Your task to perform on an android device: Open the map Image 0: 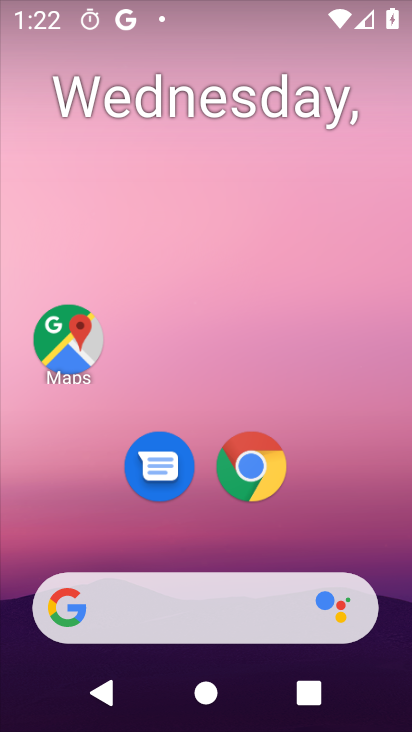
Step 0: click (73, 348)
Your task to perform on an android device: Open the map Image 1: 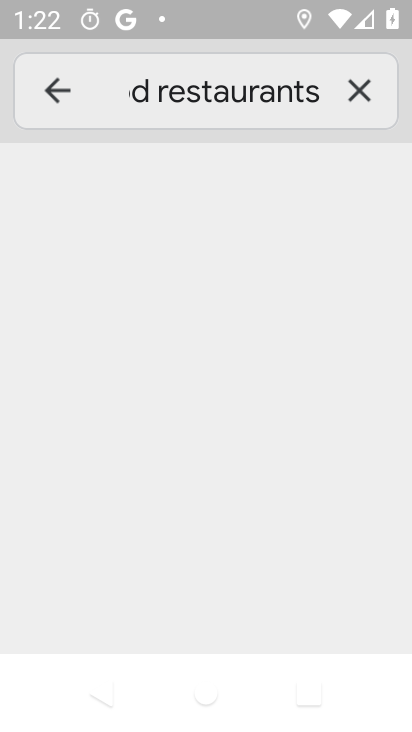
Step 1: task complete